Your task to perform on an android device: Open location settings Image 0: 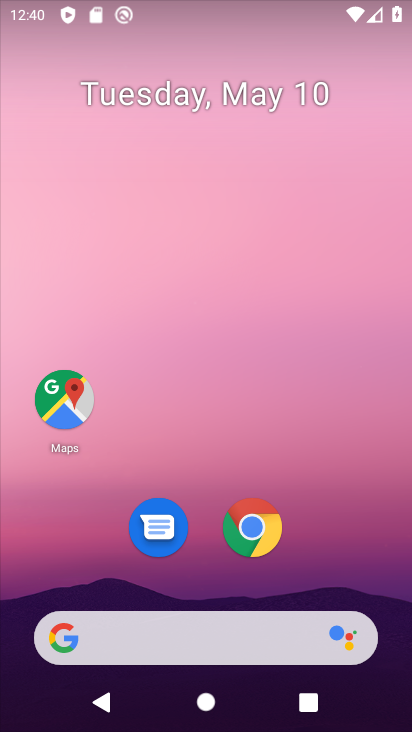
Step 0: drag from (328, 539) to (340, 268)
Your task to perform on an android device: Open location settings Image 1: 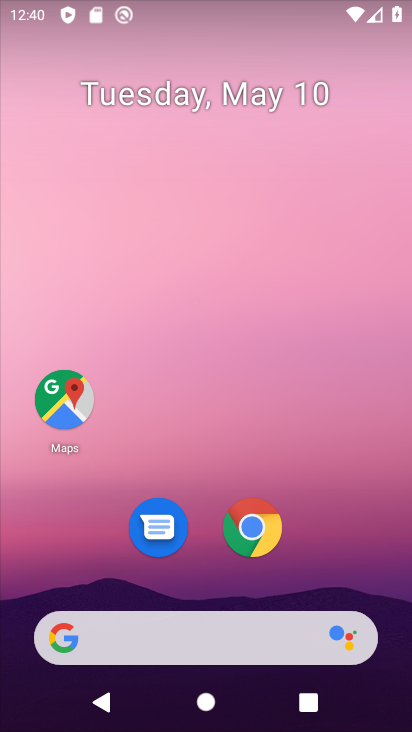
Step 1: drag from (321, 515) to (333, 135)
Your task to perform on an android device: Open location settings Image 2: 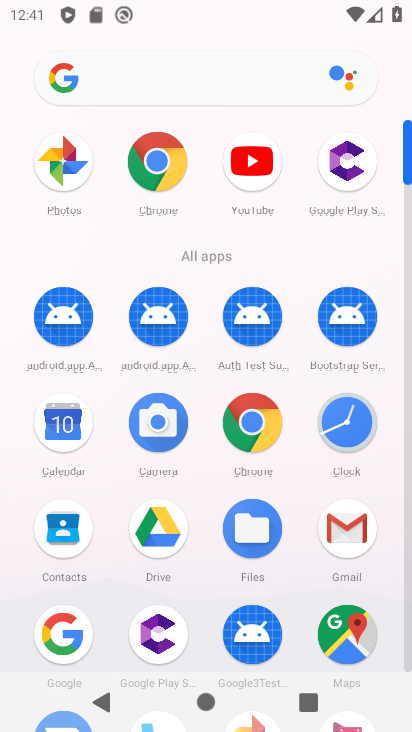
Step 2: drag from (303, 504) to (318, 229)
Your task to perform on an android device: Open location settings Image 3: 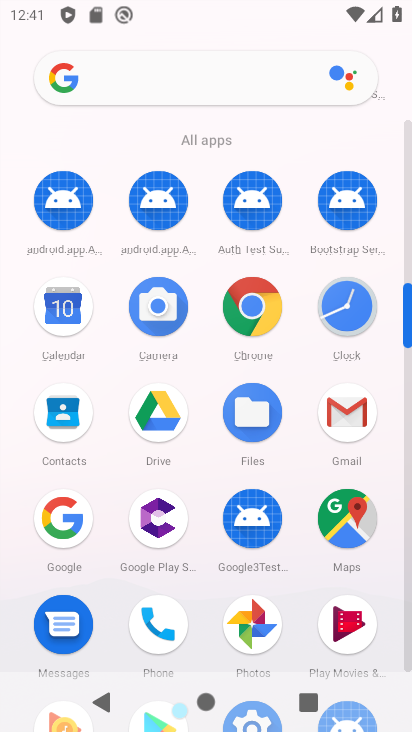
Step 3: click (254, 711)
Your task to perform on an android device: Open location settings Image 4: 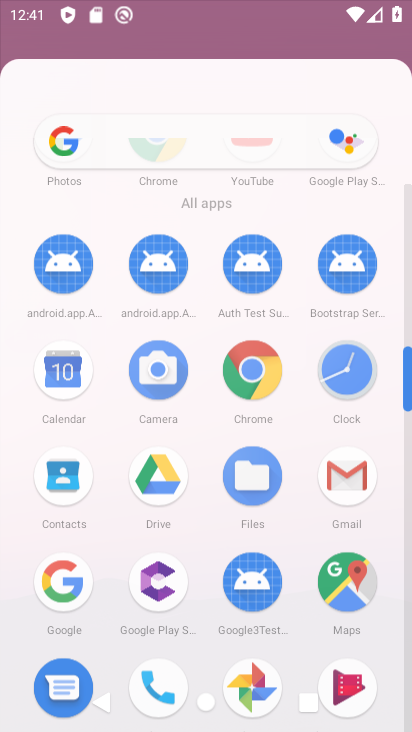
Step 4: drag from (291, 546) to (329, 137)
Your task to perform on an android device: Open location settings Image 5: 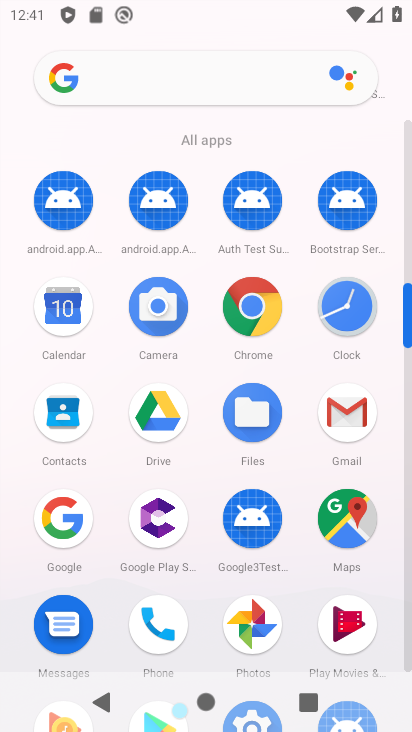
Step 5: drag from (263, 547) to (287, 270)
Your task to perform on an android device: Open location settings Image 6: 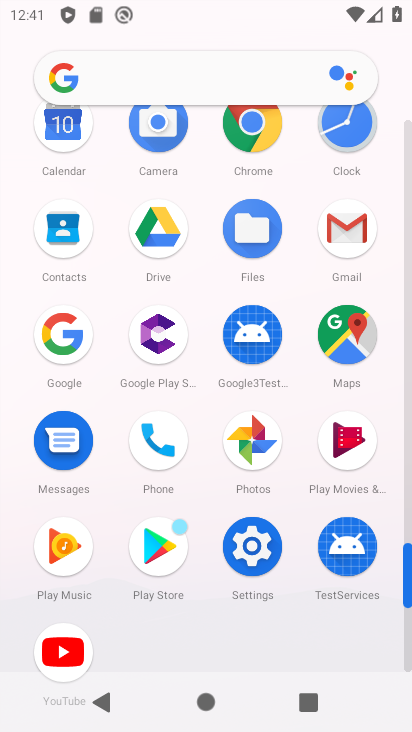
Step 6: click (267, 548)
Your task to perform on an android device: Open location settings Image 7: 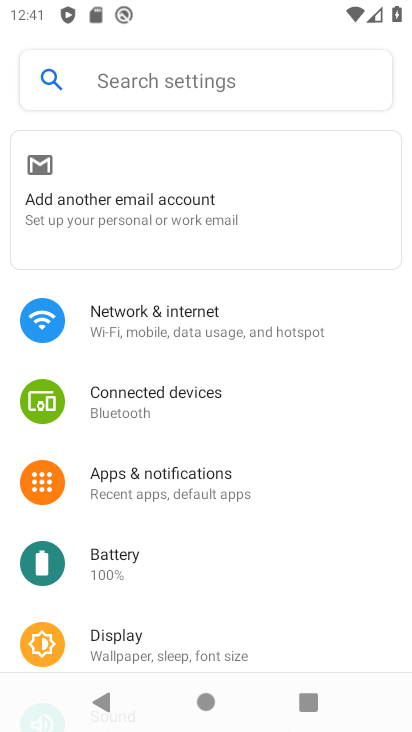
Step 7: drag from (314, 588) to (318, 237)
Your task to perform on an android device: Open location settings Image 8: 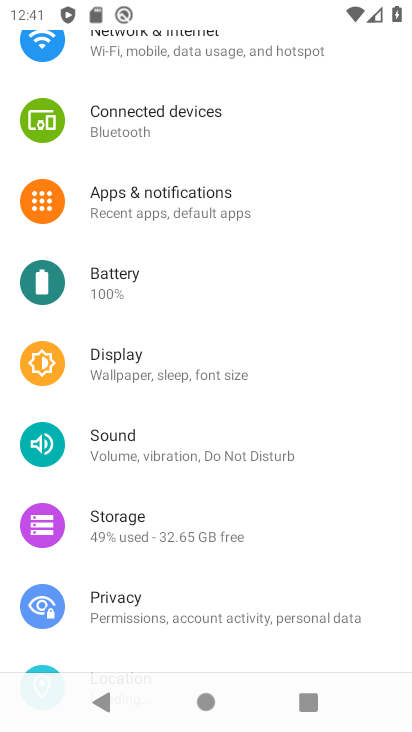
Step 8: drag from (256, 576) to (310, 201)
Your task to perform on an android device: Open location settings Image 9: 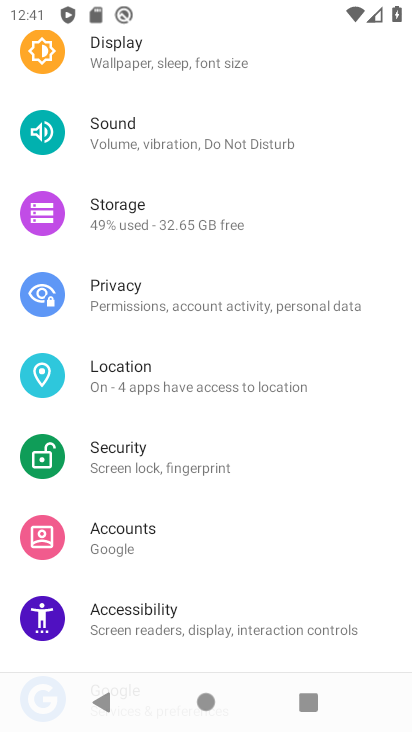
Step 9: click (265, 370)
Your task to perform on an android device: Open location settings Image 10: 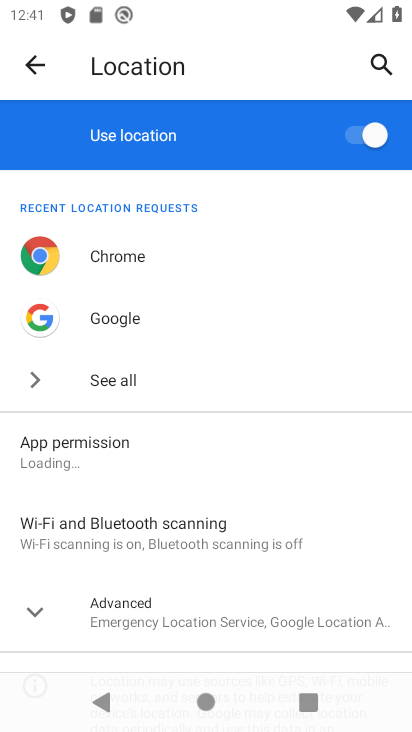
Step 10: task complete